Your task to perform on an android device: Go to privacy settings Image 0: 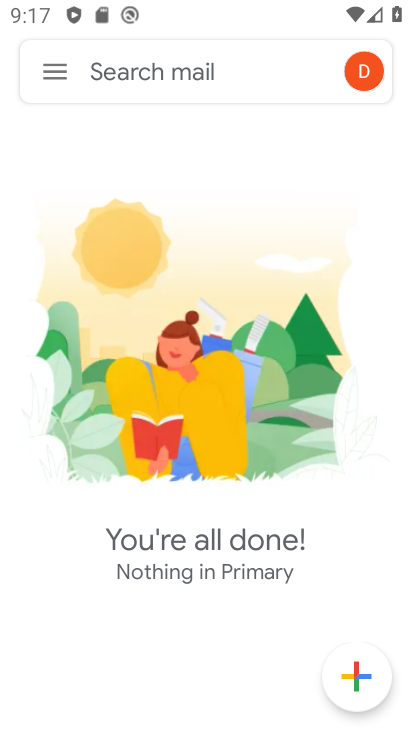
Step 0: press home button
Your task to perform on an android device: Go to privacy settings Image 1: 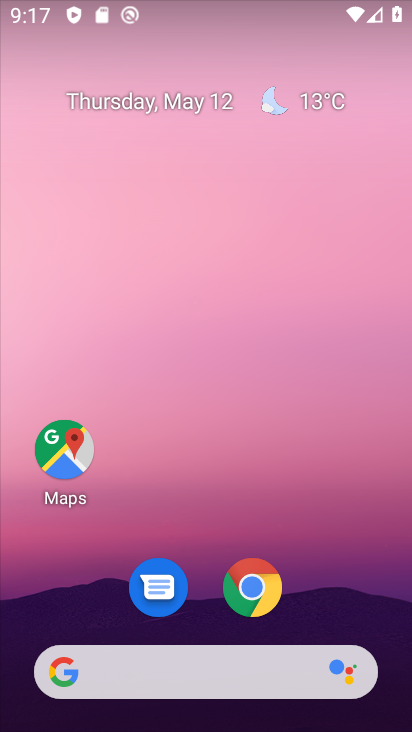
Step 1: drag from (357, 578) to (351, 91)
Your task to perform on an android device: Go to privacy settings Image 2: 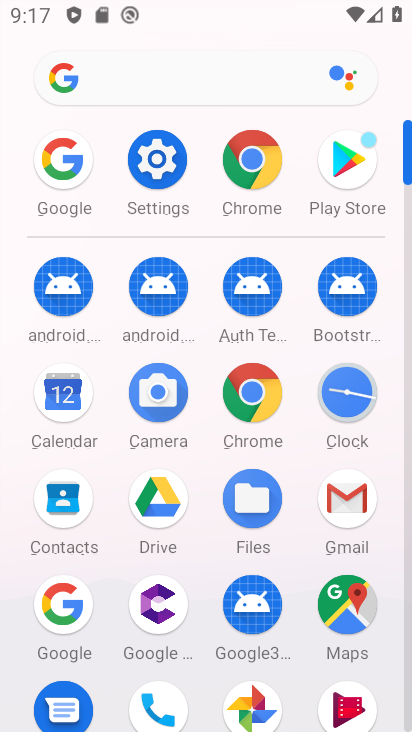
Step 2: click (184, 155)
Your task to perform on an android device: Go to privacy settings Image 3: 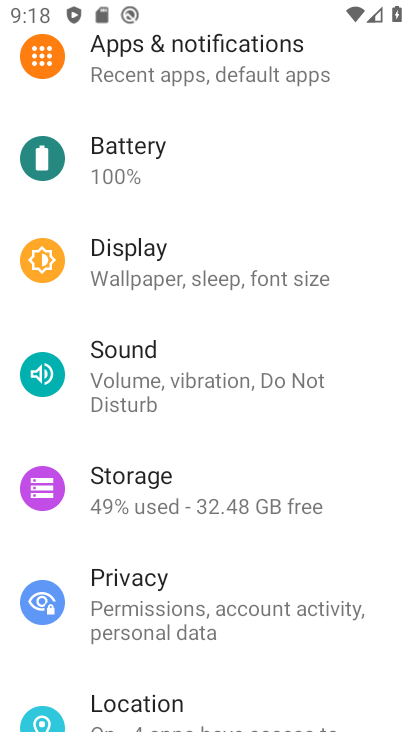
Step 3: drag from (228, 598) to (147, 296)
Your task to perform on an android device: Go to privacy settings Image 4: 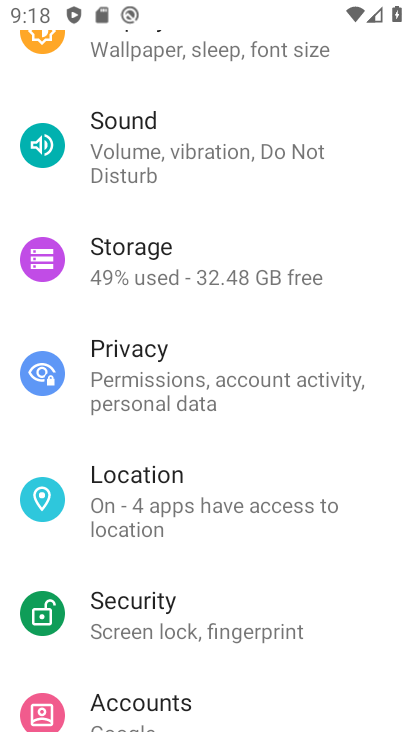
Step 4: click (124, 367)
Your task to perform on an android device: Go to privacy settings Image 5: 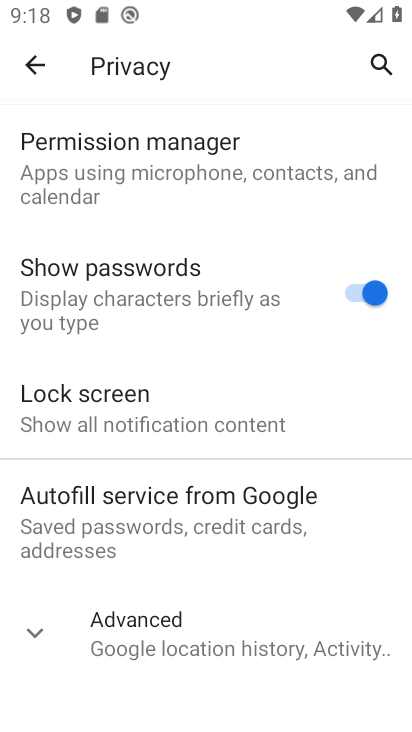
Step 5: task complete